Your task to perform on an android device: Search for seafood restaurants on Google Maps Image 0: 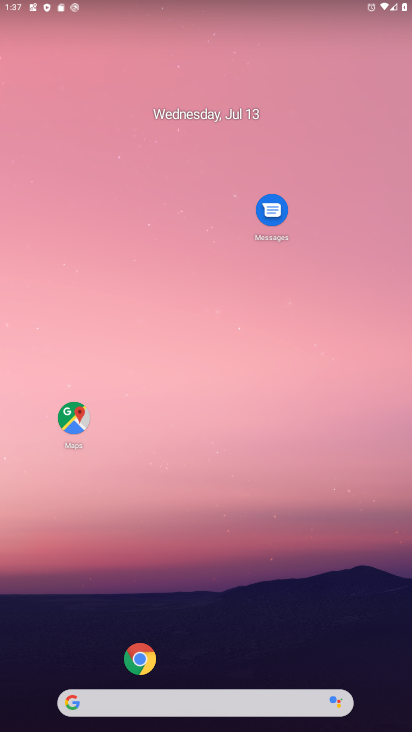
Step 0: click (72, 402)
Your task to perform on an android device: Search for seafood restaurants on Google Maps Image 1: 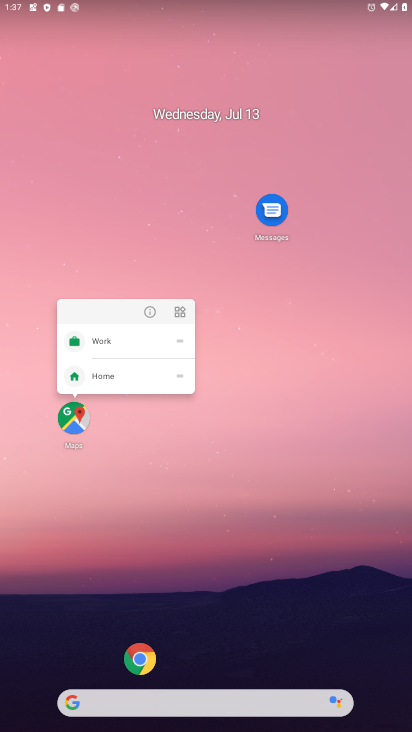
Step 1: click (77, 427)
Your task to perform on an android device: Search for seafood restaurants on Google Maps Image 2: 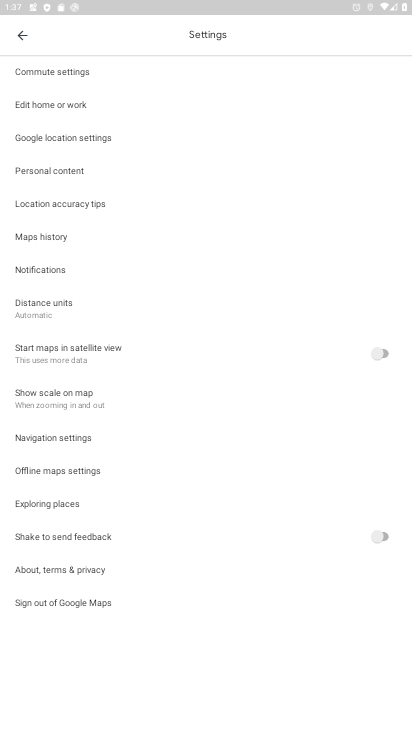
Step 2: click (22, 31)
Your task to perform on an android device: Search for seafood restaurants on Google Maps Image 3: 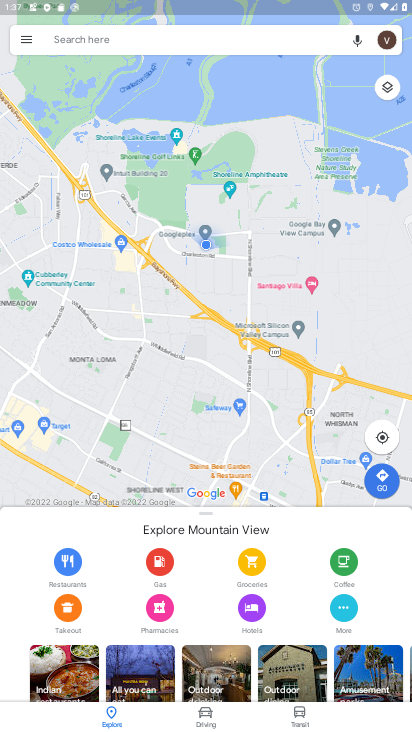
Step 3: click (97, 39)
Your task to perform on an android device: Search for seafood restaurants on Google Maps Image 4: 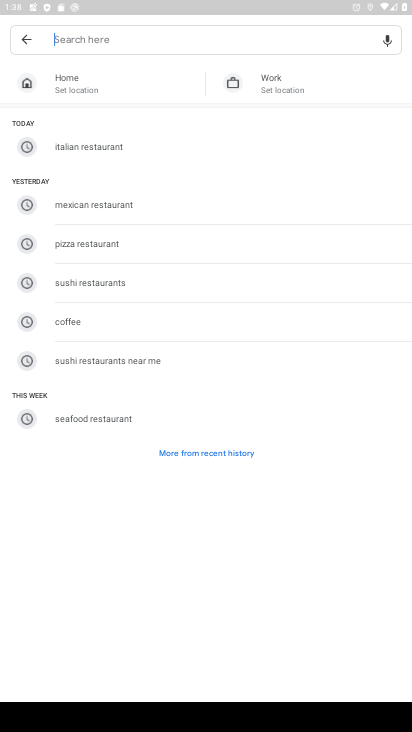
Step 4: type "seafood restaurants"
Your task to perform on an android device: Search for seafood restaurants on Google Maps Image 5: 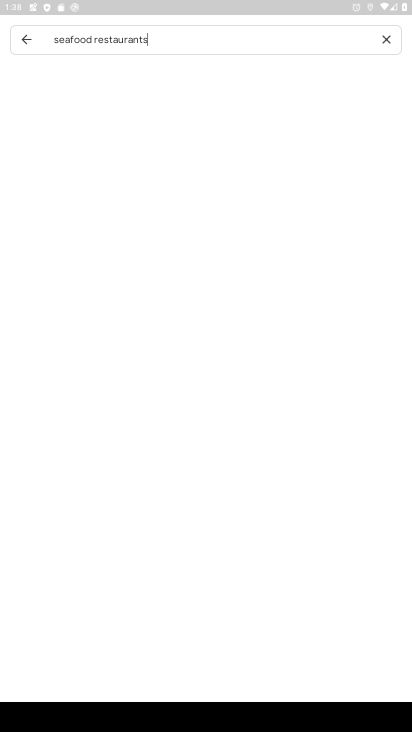
Step 5: type ""
Your task to perform on an android device: Search for seafood restaurants on Google Maps Image 6: 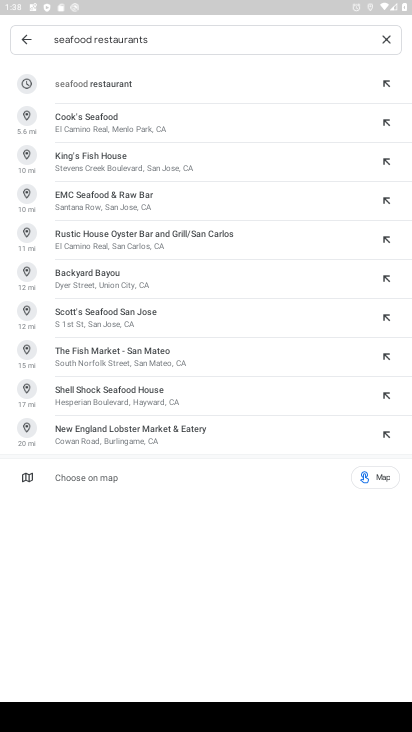
Step 6: type ""
Your task to perform on an android device: Search for seafood restaurants on Google Maps Image 7: 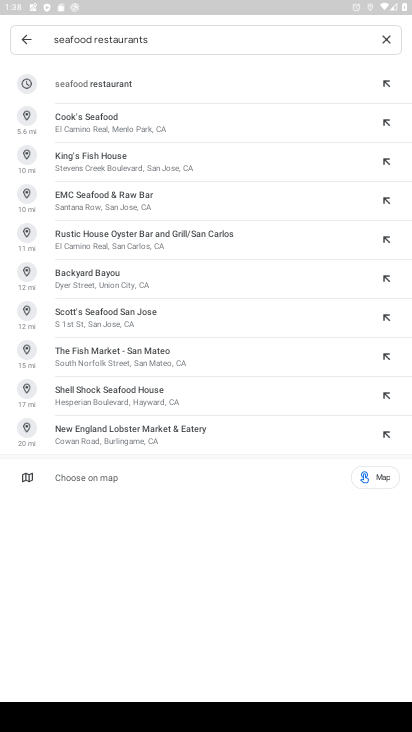
Step 7: type ""
Your task to perform on an android device: Search for seafood restaurants on Google Maps Image 8: 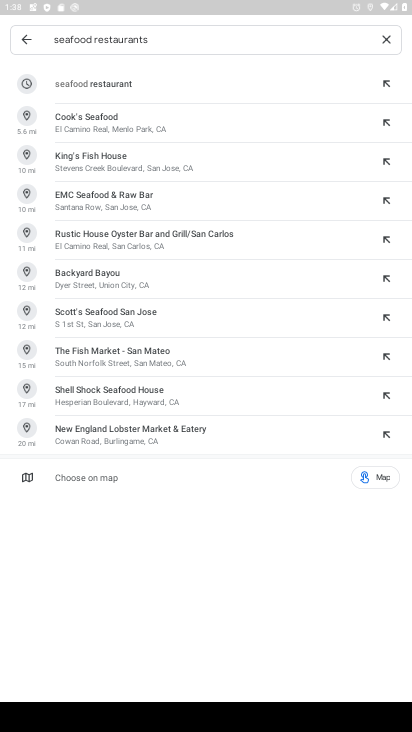
Step 8: type ""
Your task to perform on an android device: Search for seafood restaurants on Google Maps Image 9: 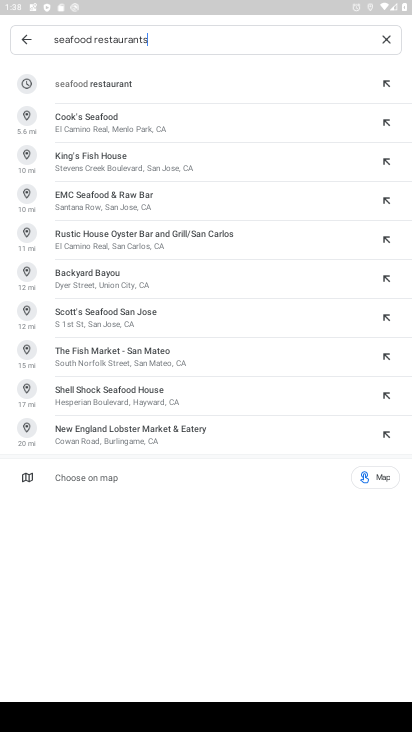
Step 9: type ""
Your task to perform on an android device: Search for seafood restaurants on Google Maps Image 10: 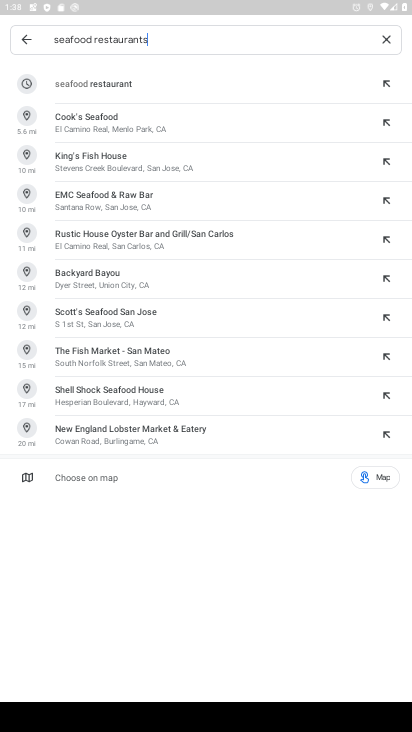
Step 10: task complete